Your task to perform on an android device: Find coffee shops on Maps Image 0: 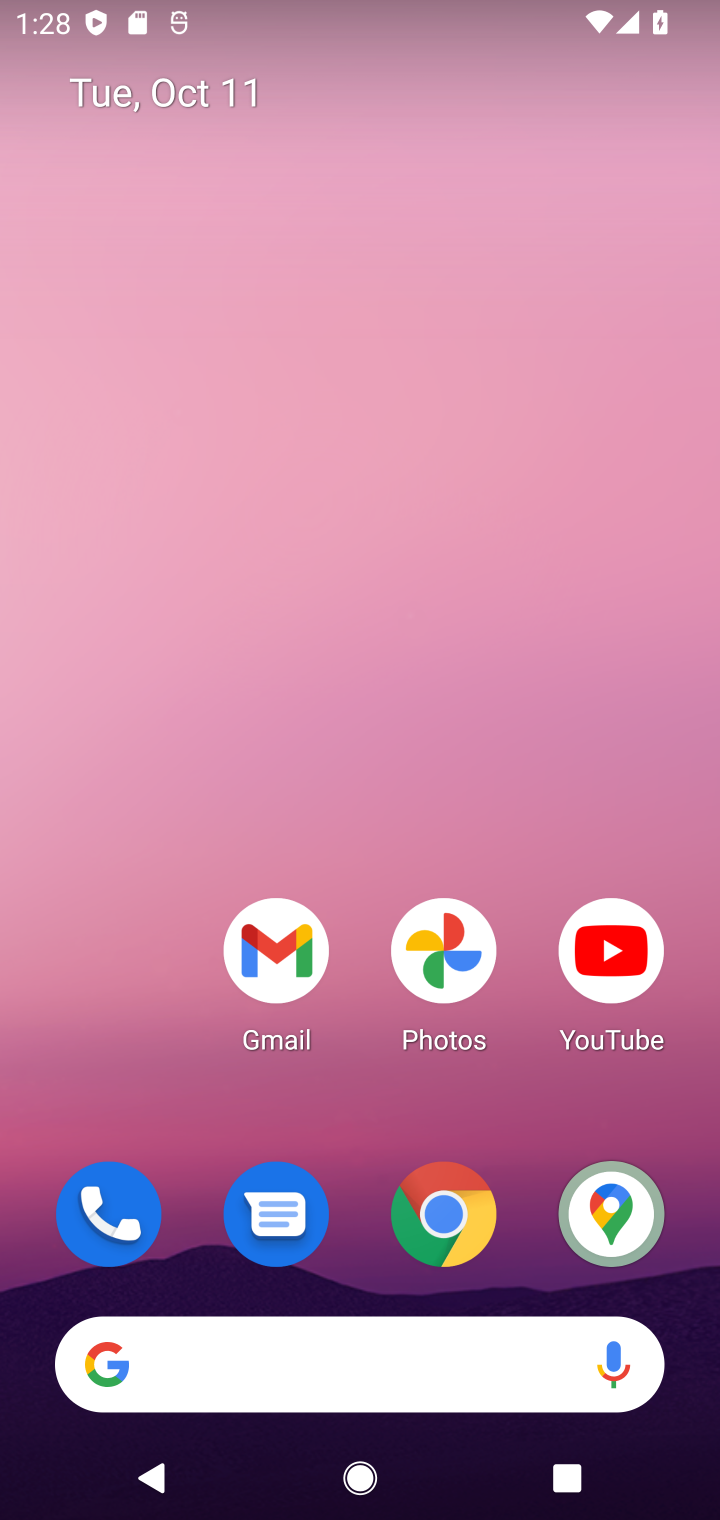
Step 0: click (613, 1200)
Your task to perform on an android device: Find coffee shops on Maps Image 1: 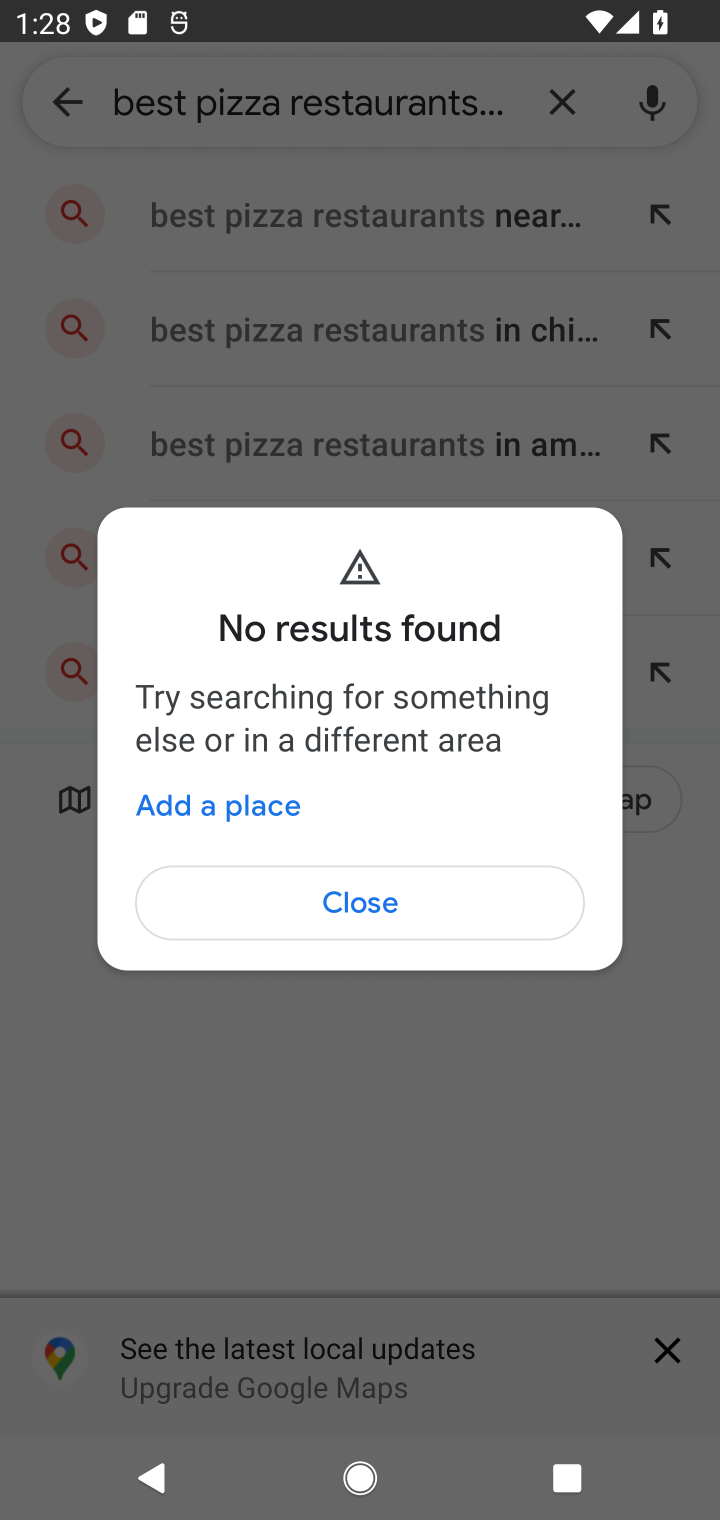
Step 1: click (385, 911)
Your task to perform on an android device: Find coffee shops on Maps Image 2: 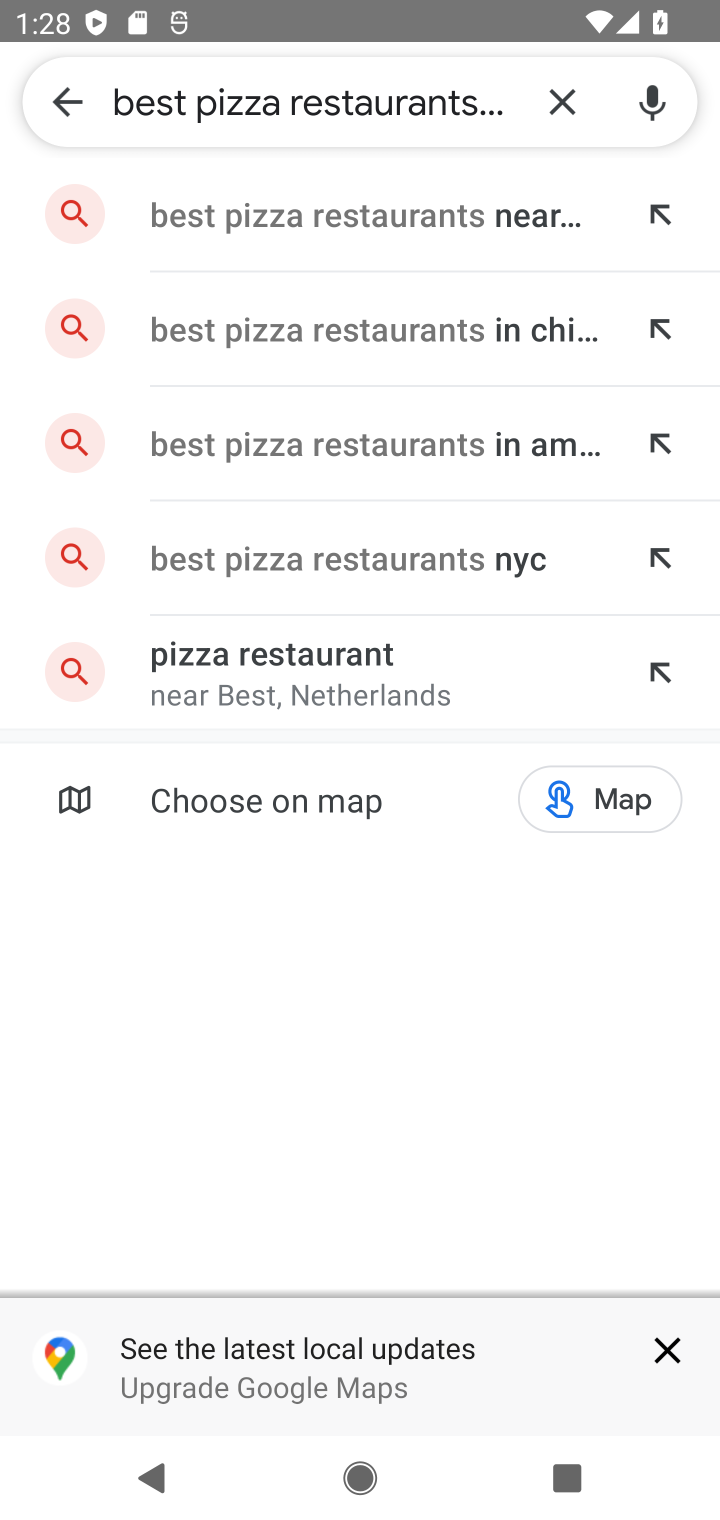
Step 2: click (560, 102)
Your task to perform on an android device: Find coffee shops on Maps Image 3: 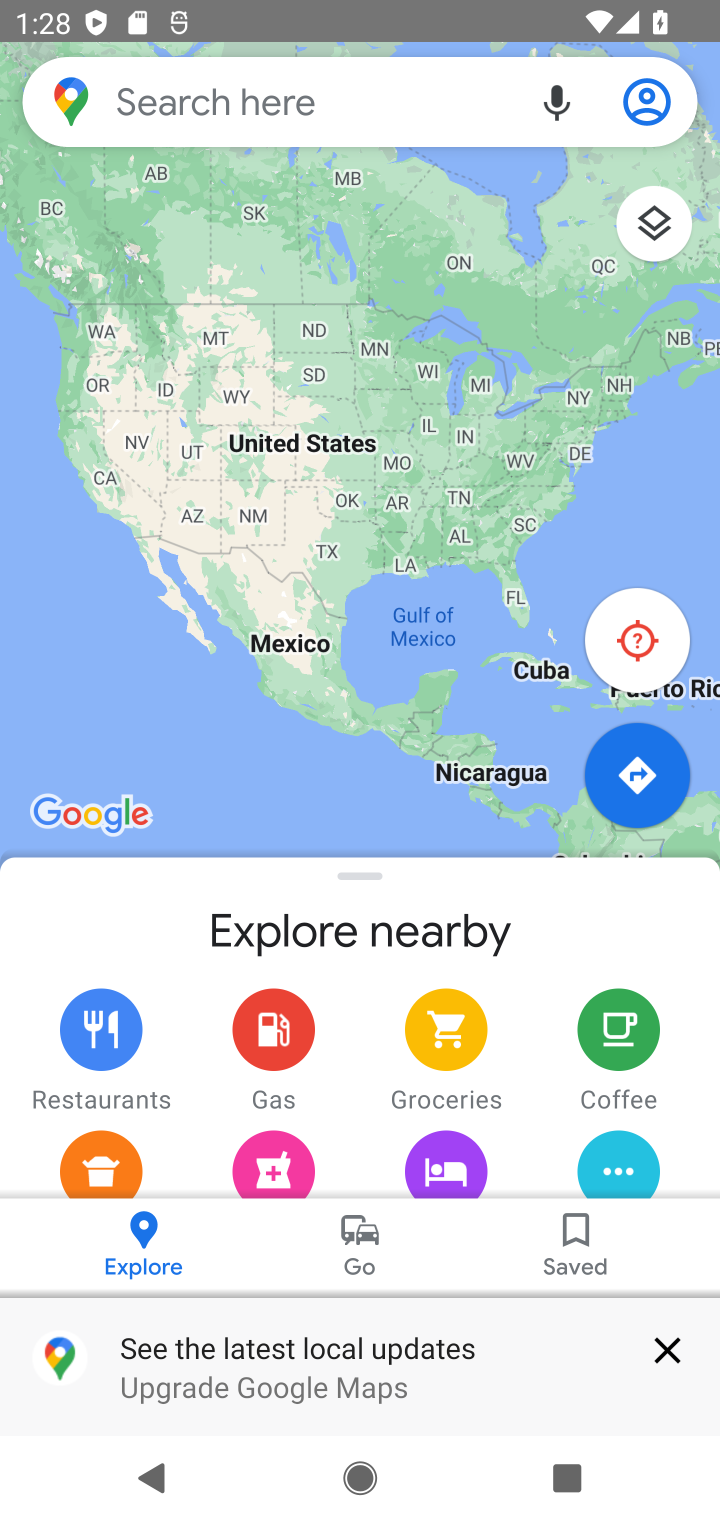
Step 3: click (378, 100)
Your task to perform on an android device: Find coffee shops on Maps Image 4: 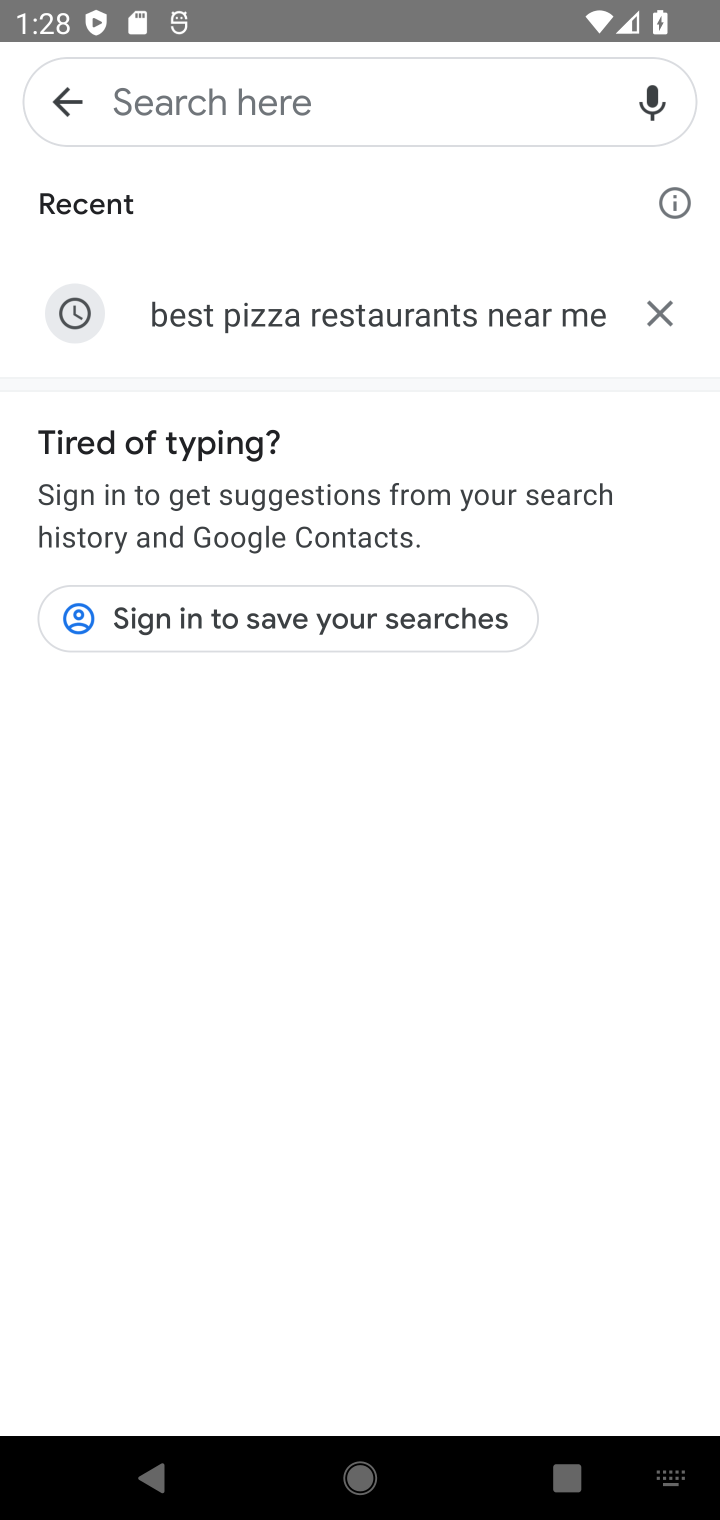
Step 4: type "coffee shops "
Your task to perform on an android device: Find coffee shops on Maps Image 5: 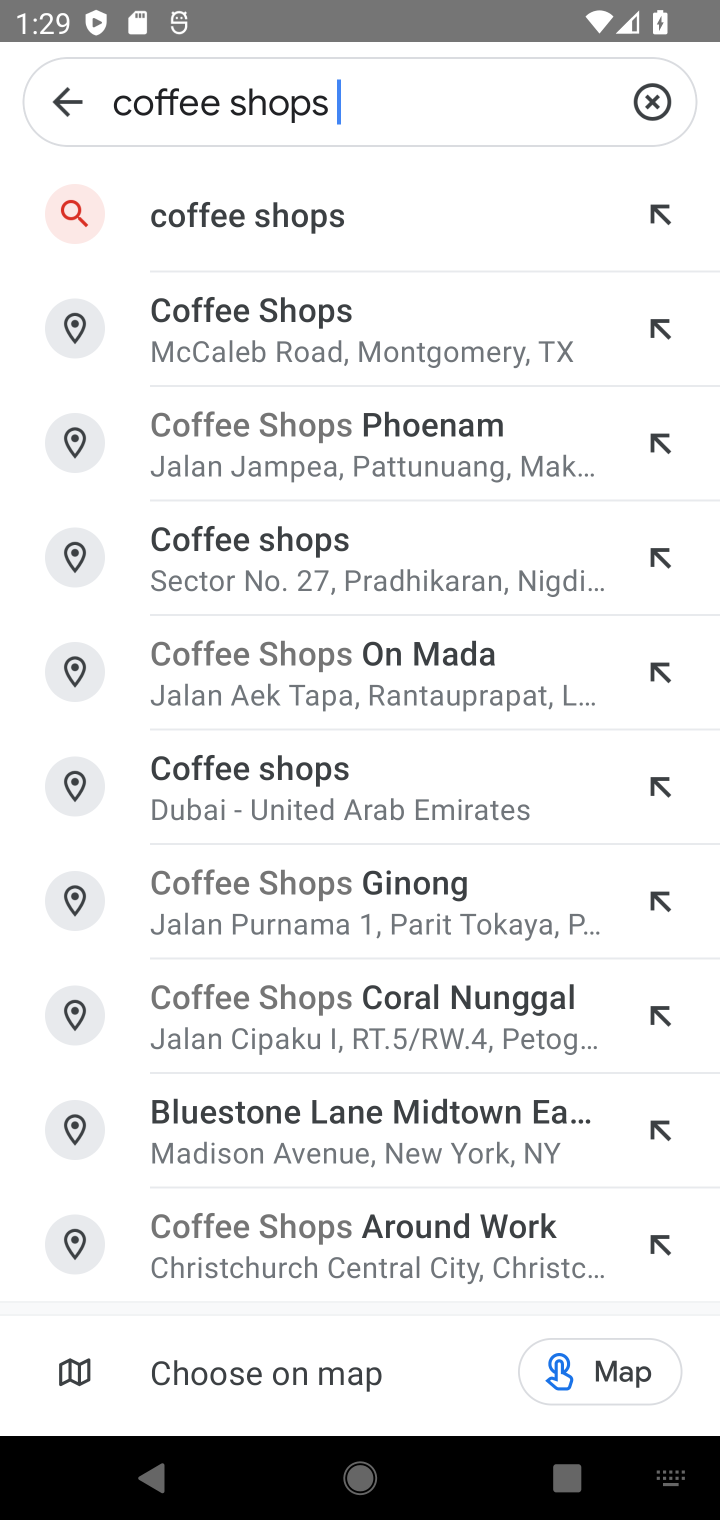
Step 5: click (254, 214)
Your task to perform on an android device: Find coffee shops on Maps Image 6: 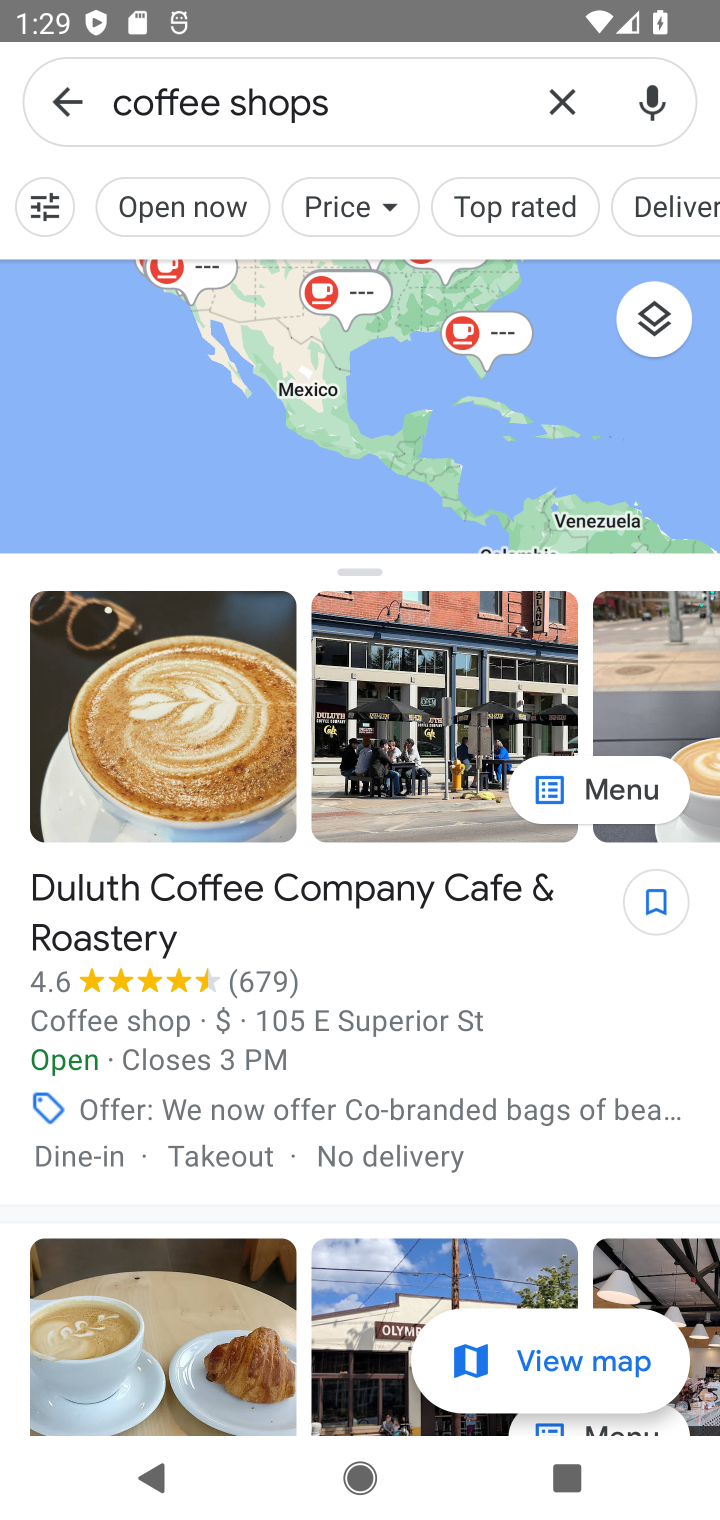
Step 6: task complete